Your task to perform on an android device: View the shopping cart on bestbuy.com. Add lenovo thinkpad to the cart on bestbuy.com Image 0: 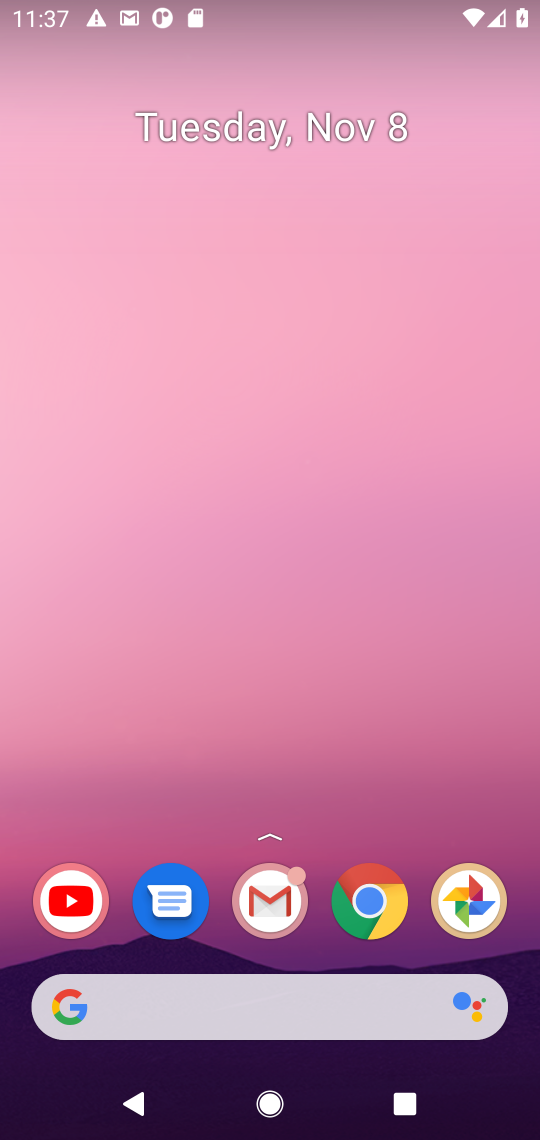
Step 0: click (379, 892)
Your task to perform on an android device: View the shopping cart on bestbuy.com. Add lenovo thinkpad to the cart on bestbuy.com Image 1: 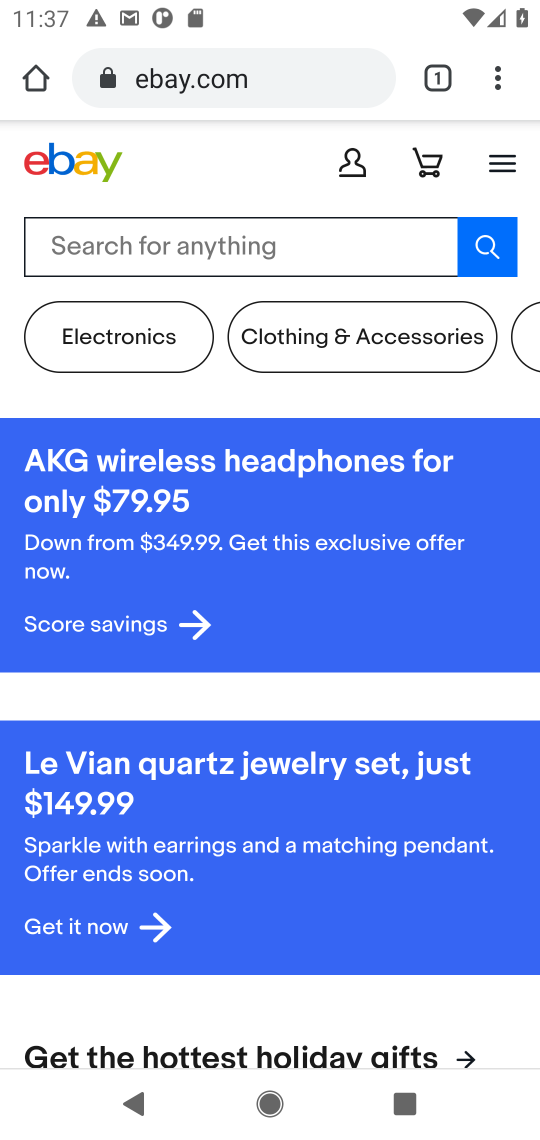
Step 1: click (337, 82)
Your task to perform on an android device: View the shopping cart on bestbuy.com. Add lenovo thinkpad to the cart on bestbuy.com Image 2: 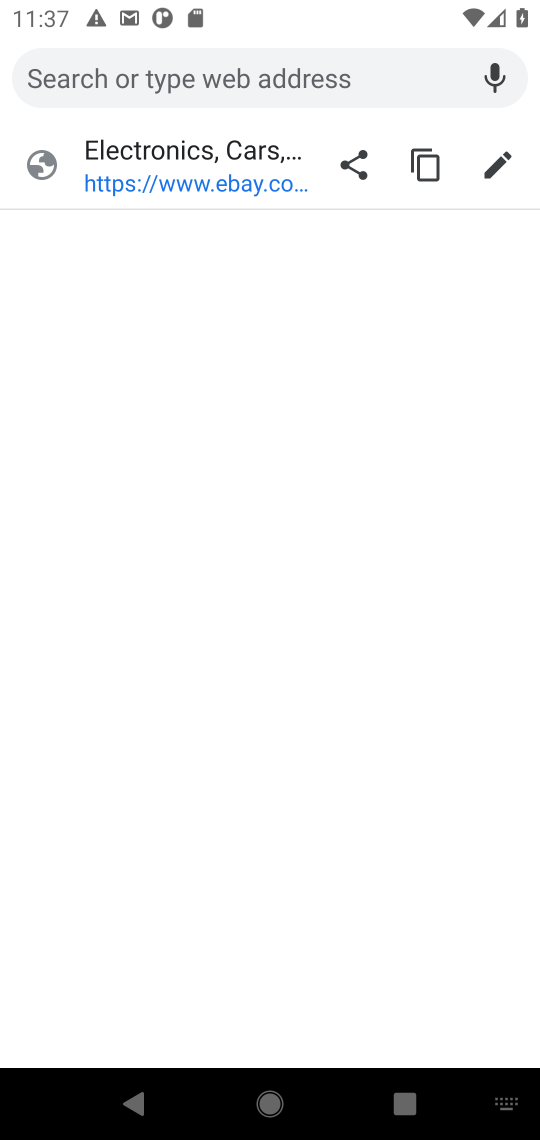
Step 2: type "bestbuy.com"
Your task to perform on an android device: View the shopping cart on bestbuy.com. Add lenovo thinkpad to the cart on bestbuy.com Image 3: 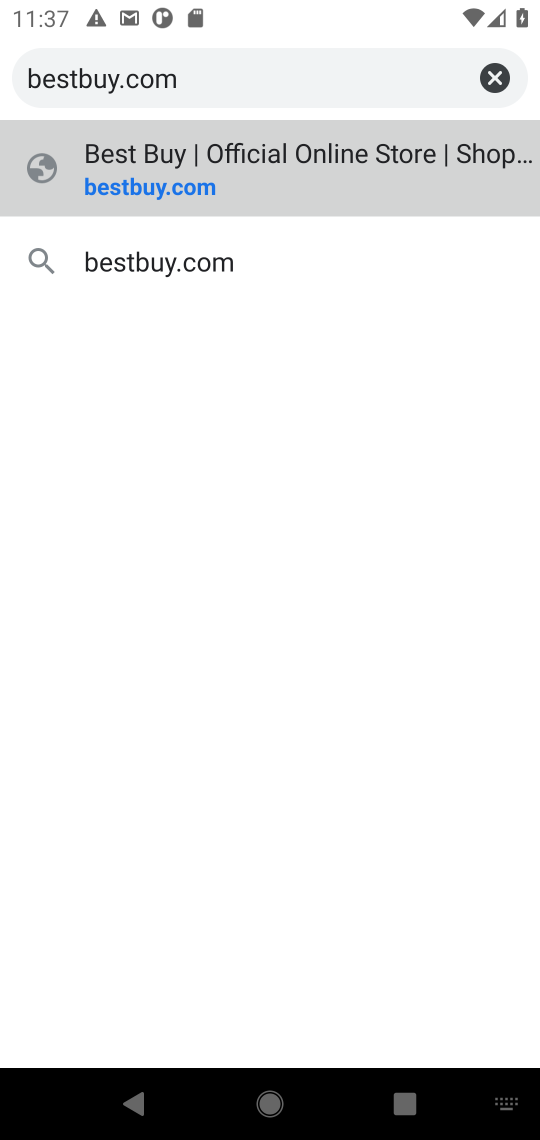
Step 3: press enter
Your task to perform on an android device: View the shopping cart on bestbuy.com. Add lenovo thinkpad to the cart on bestbuy.com Image 4: 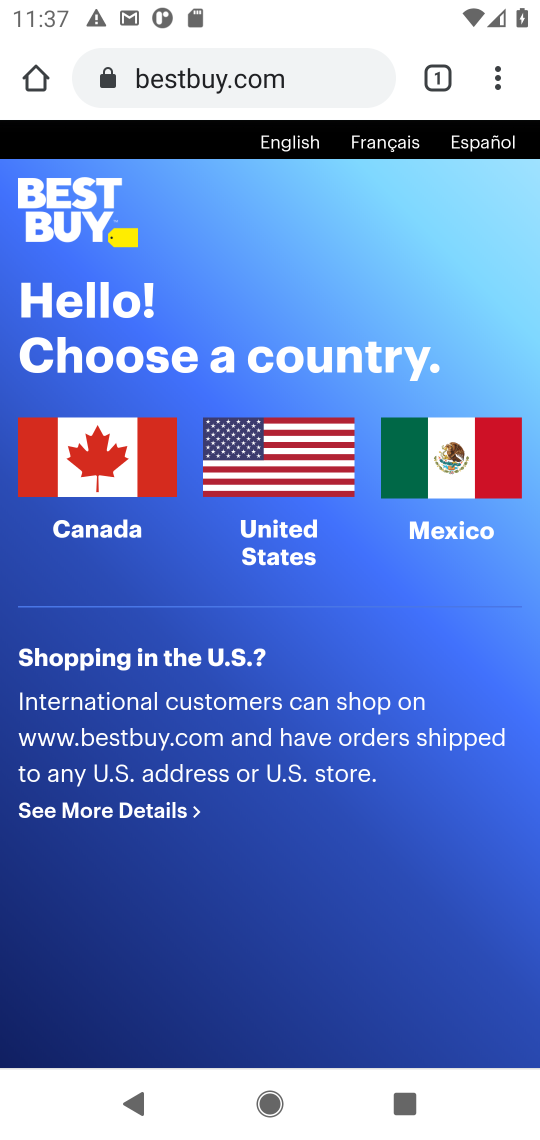
Step 4: click (306, 450)
Your task to perform on an android device: View the shopping cart on bestbuy.com. Add lenovo thinkpad to the cart on bestbuy.com Image 5: 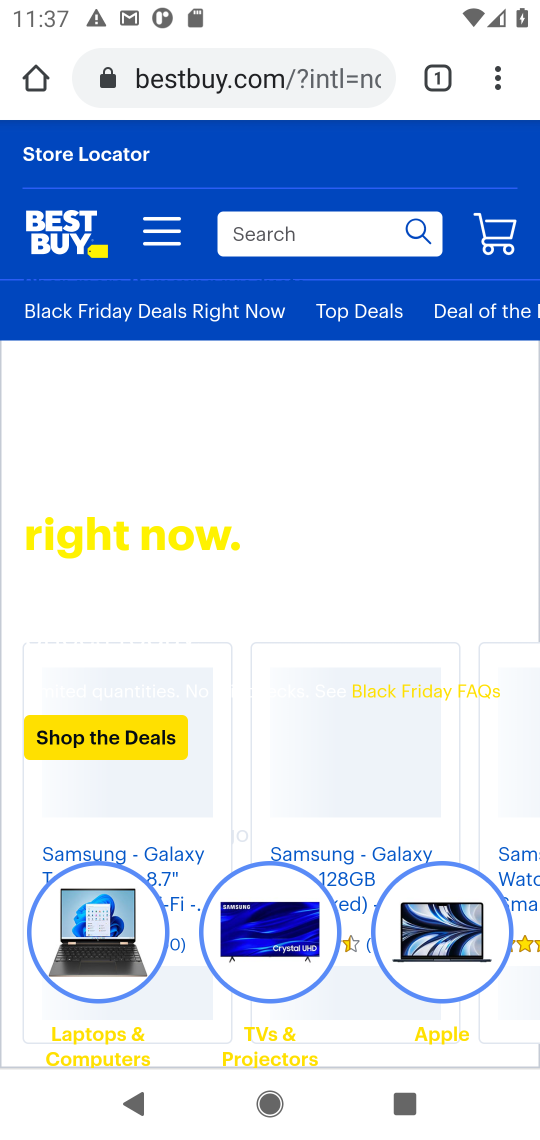
Step 5: click (297, 233)
Your task to perform on an android device: View the shopping cart on bestbuy.com. Add lenovo thinkpad to the cart on bestbuy.com Image 6: 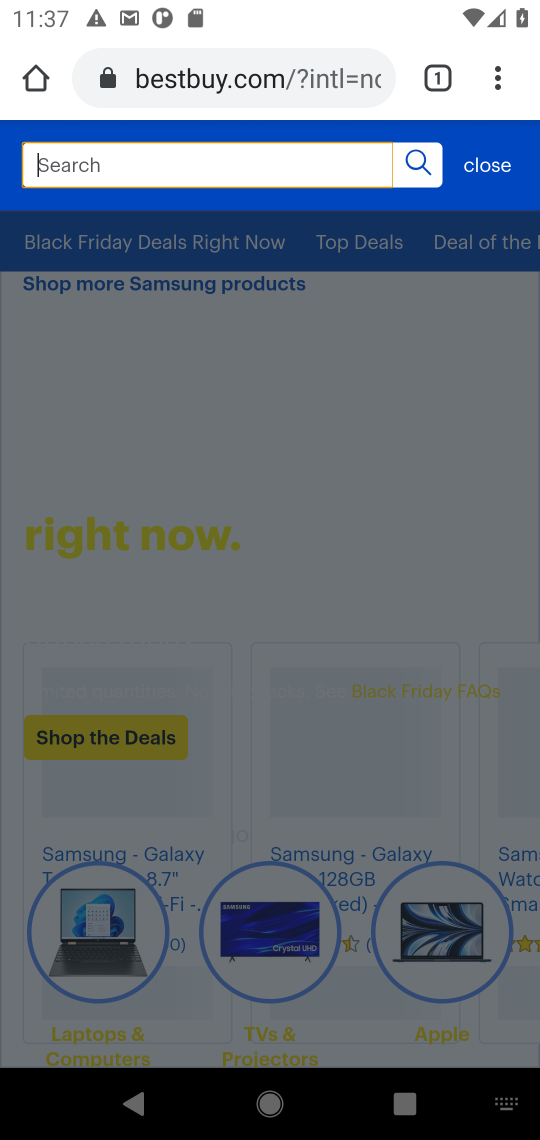
Step 6: type "lenovo thinkpad"
Your task to perform on an android device: View the shopping cart on bestbuy.com. Add lenovo thinkpad to the cart on bestbuy.com Image 7: 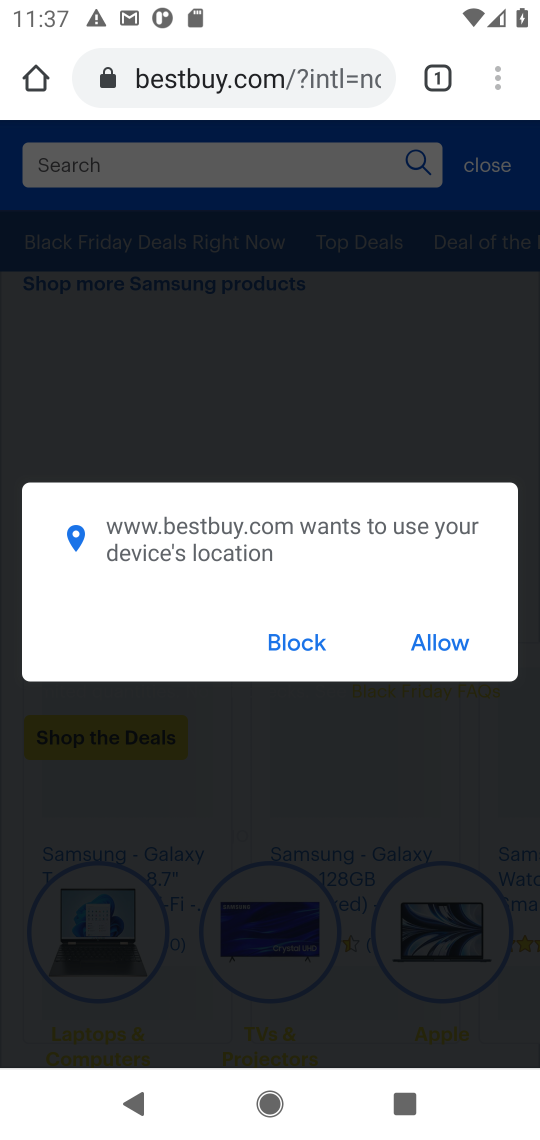
Step 7: press enter
Your task to perform on an android device: View the shopping cart on bestbuy.com. Add lenovo thinkpad to the cart on bestbuy.com Image 8: 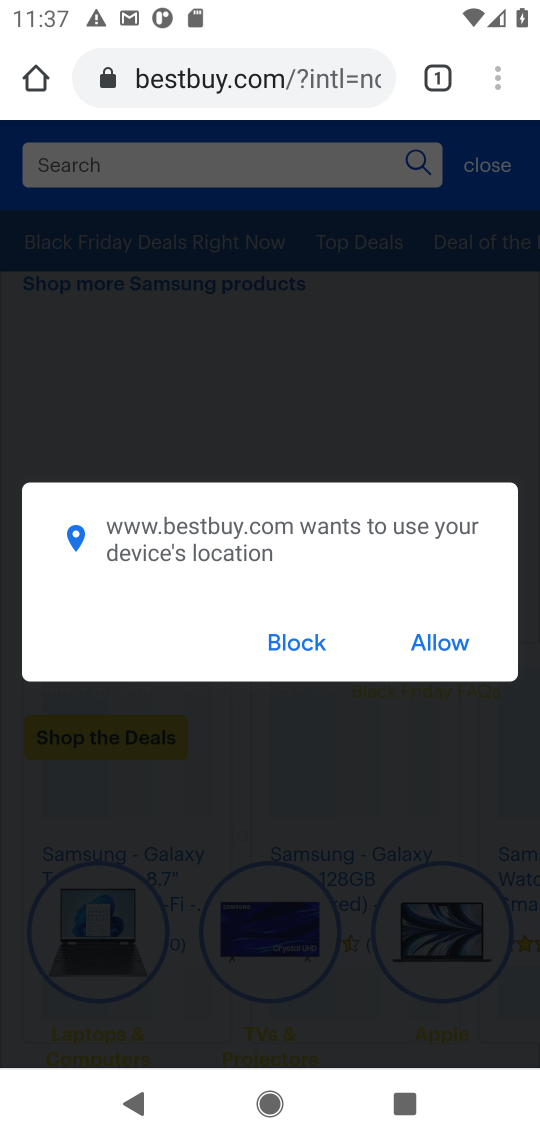
Step 8: click (323, 641)
Your task to perform on an android device: View the shopping cart on bestbuy.com. Add lenovo thinkpad to the cart on bestbuy.com Image 9: 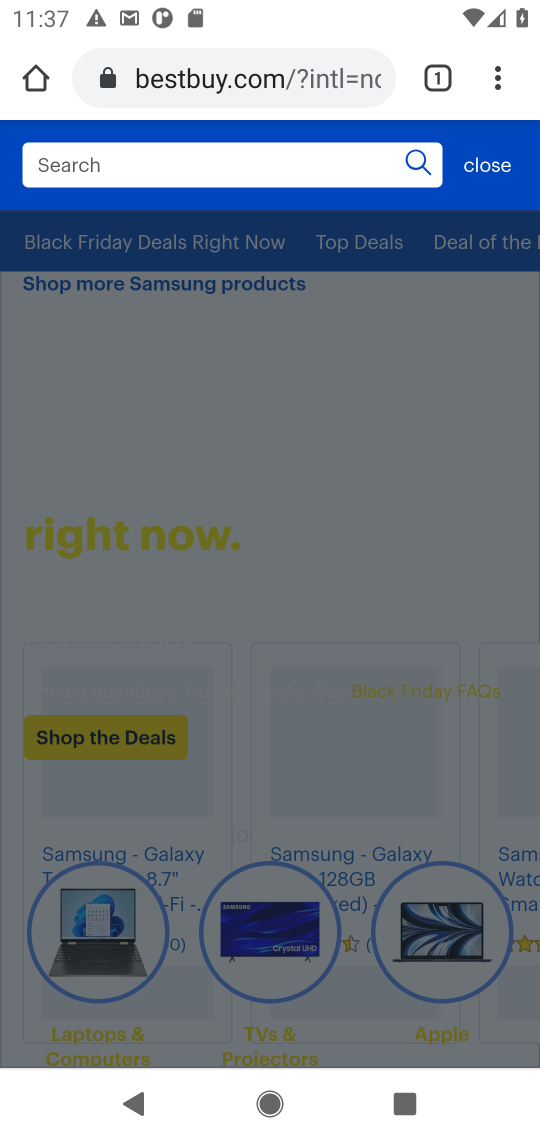
Step 9: click (374, 163)
Your task to perform on an android device: View the shopping cart on bestbuy.com. Add lenovo thinkpad to the cart on bestbuy.com Image 10: 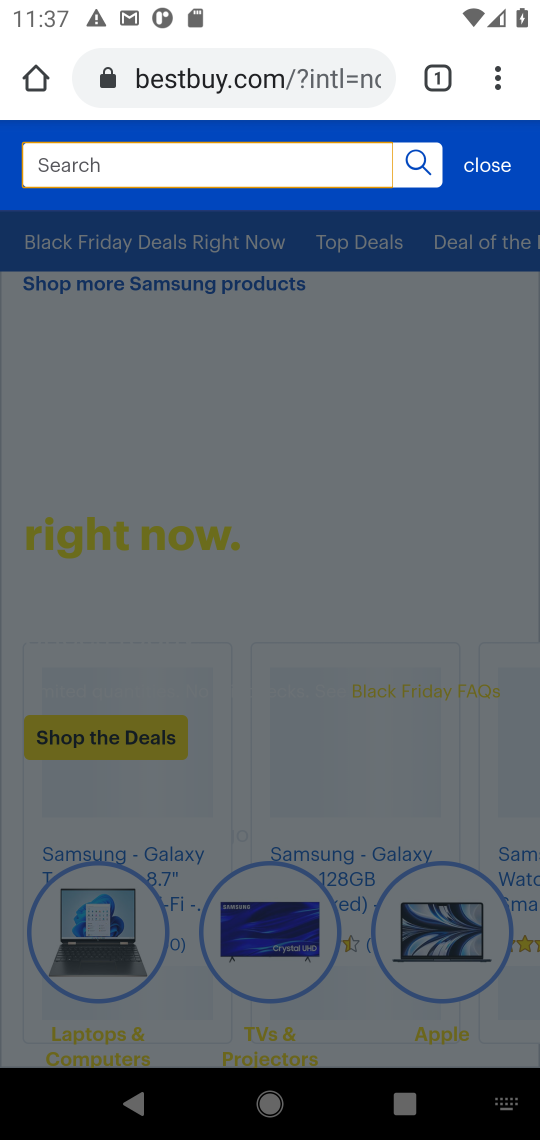
Step 10: type "lenovo thinkpad"
Your task to perform on an android device: View the shopping cart on bestbuy.com. Add lenovo thinkpad to the cart on bestbuy.com Image 11: 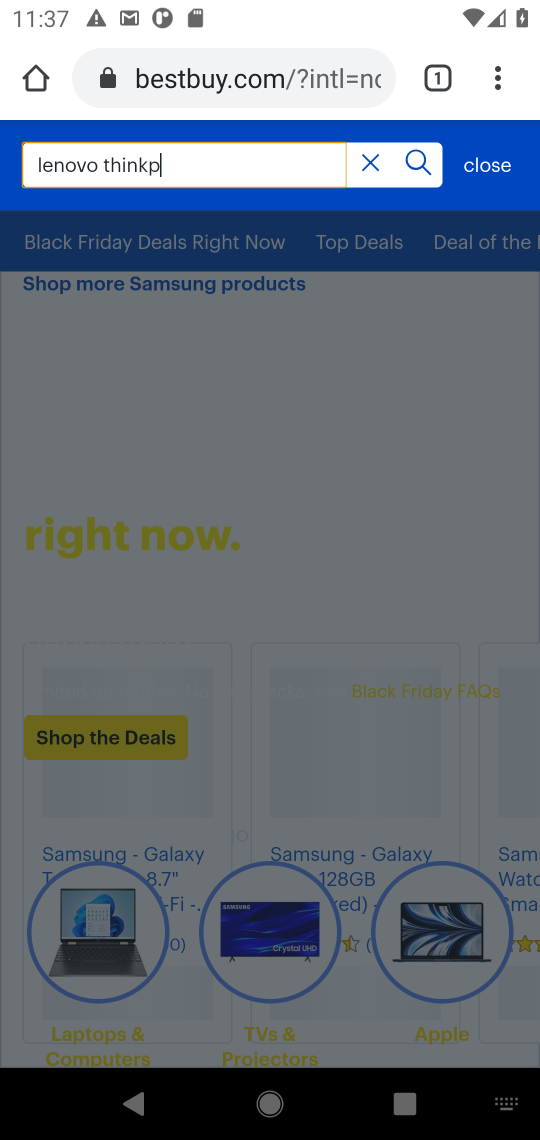
Step 11: press enter
Your task to perform on an android device: View the shopping cart on bestbuy.com. Add lenovo thinkpad to the cart on bestbuy.com Image 12: 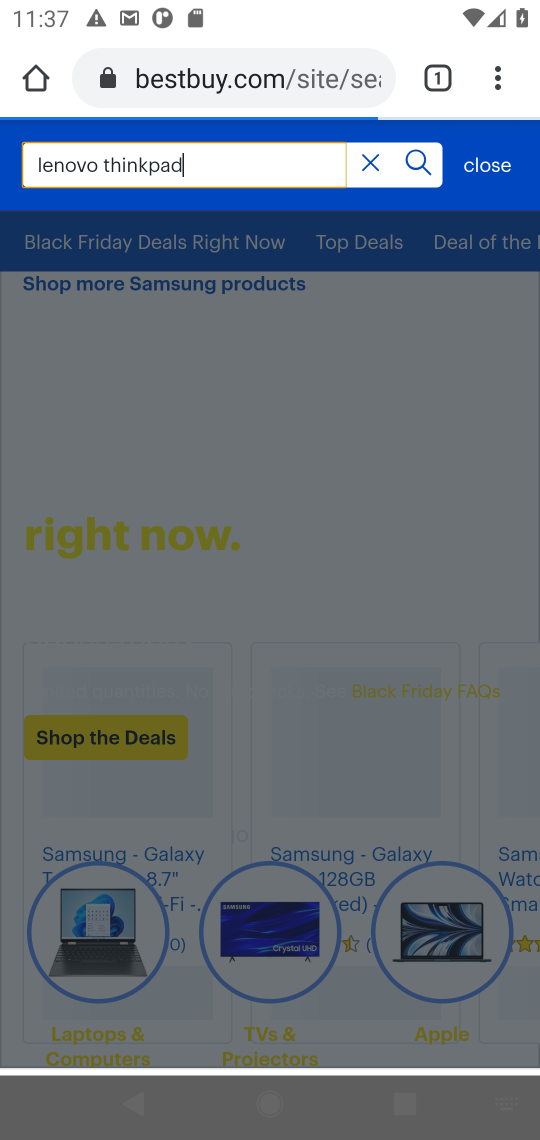
Step 12: click (387, 426)
Your task to perform on an android device: View the shopping cart on bestbuy.com. Add lenovo thinkpad to the cart on bestbuy.com Image 13: 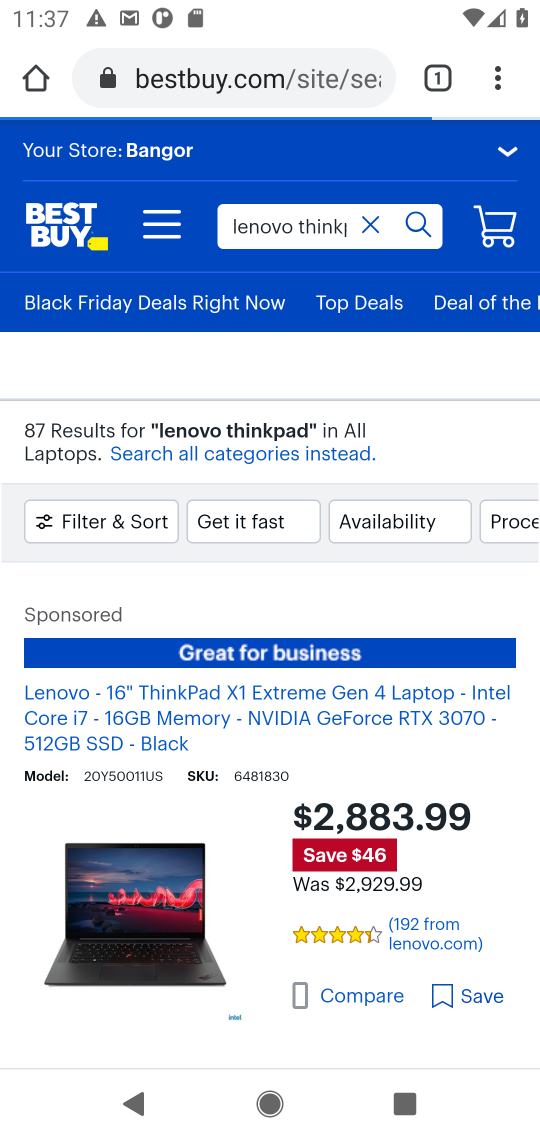
Step 13: click (145, 891)
Your task to perform on an android device: View the shopping cart on bestbuy.com. Add lenovo thinkpad to the cart on bestbuy.com Image 14: 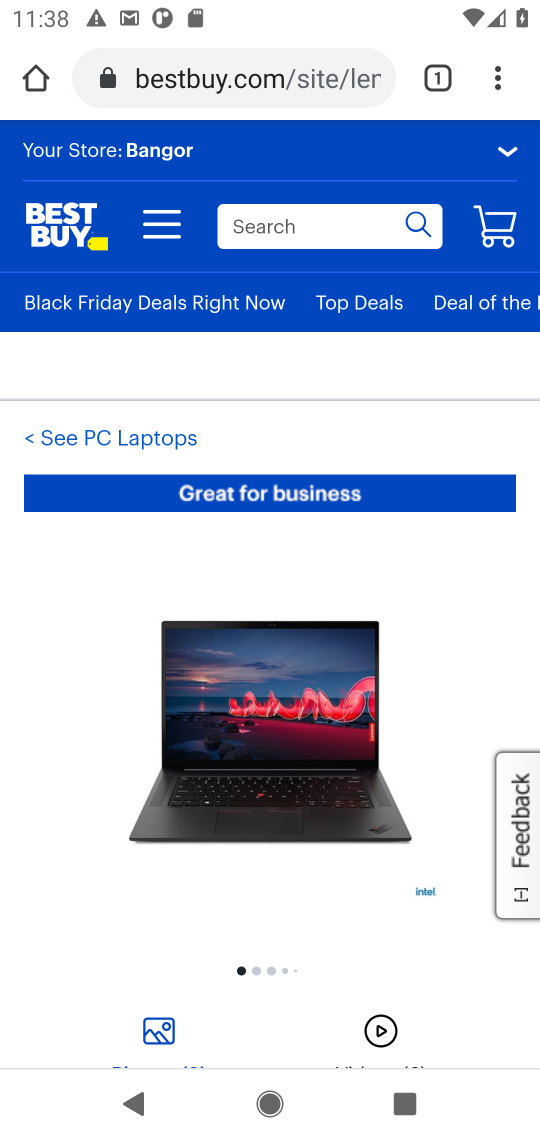
Step 14: drag from (306, 785) to (312, 386)
Your task to perform on an android device: View the shopping cart on bestbuy.com. Add lenovo thinkpad to the cart on bestbuy.com Image 15: 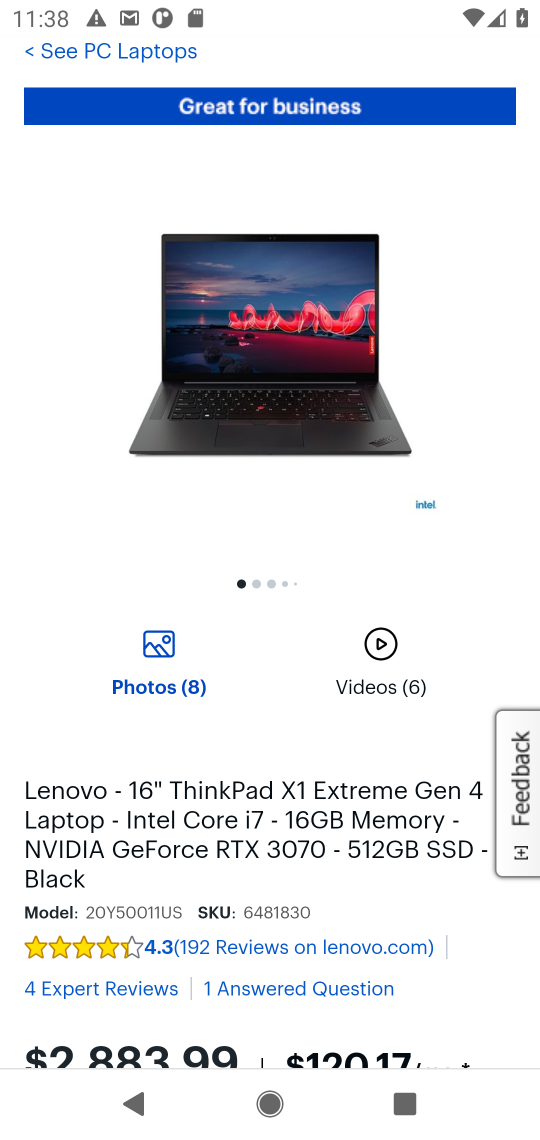
Step 15: drag from (358, 529) to (342, 216)
Your task to perform on an android device: View the shopping cart on bestbuy.com. Add lenovo thinkpad to the cart on bestbuy.com Image 16: 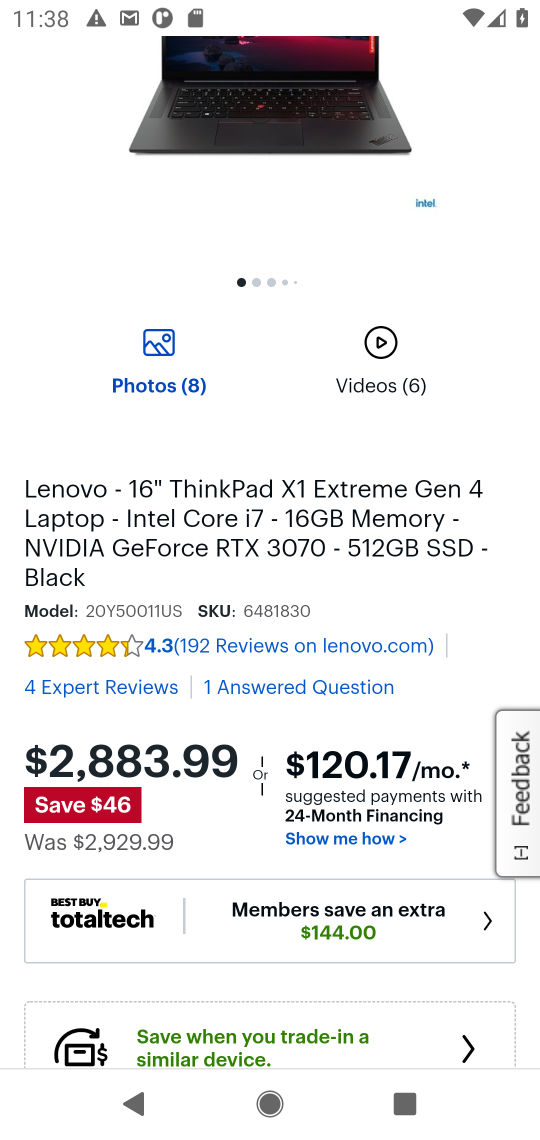
Step 16: drag from (285, 958) to (299, 329)
Your task to perform on an android device: View the shopping cart on bestbuy.com. Add lenovo thinkpad to the cart on bestbuy.com Image 17: 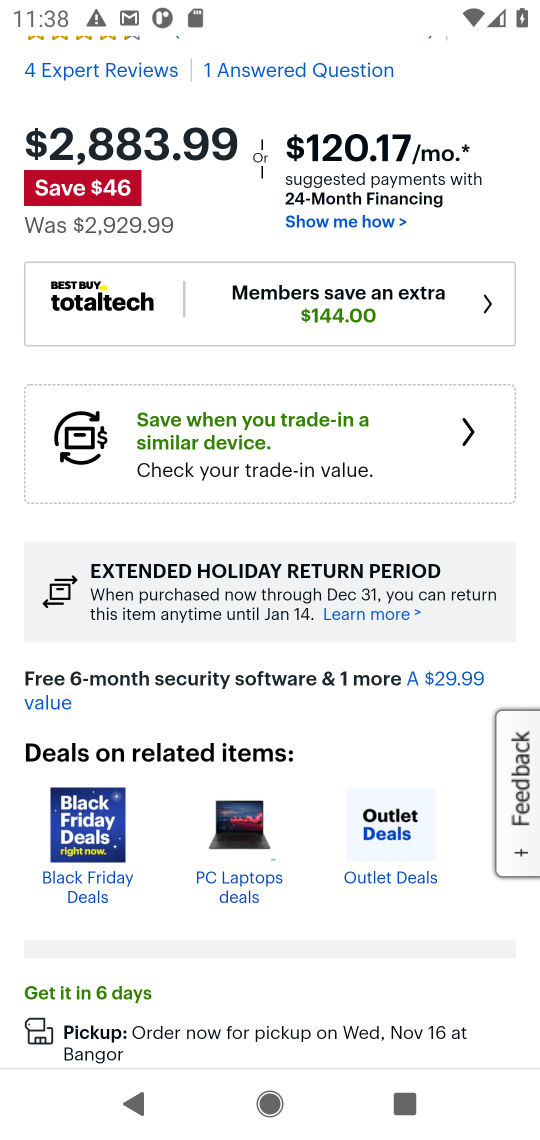
Step 17: drag from (411, 750) to (405, 407)
Your task to perform on an android device: View the shopping cart on bestbuy.com. Add lenovo thinkpad to the cart on bestbuy.com Image 18: 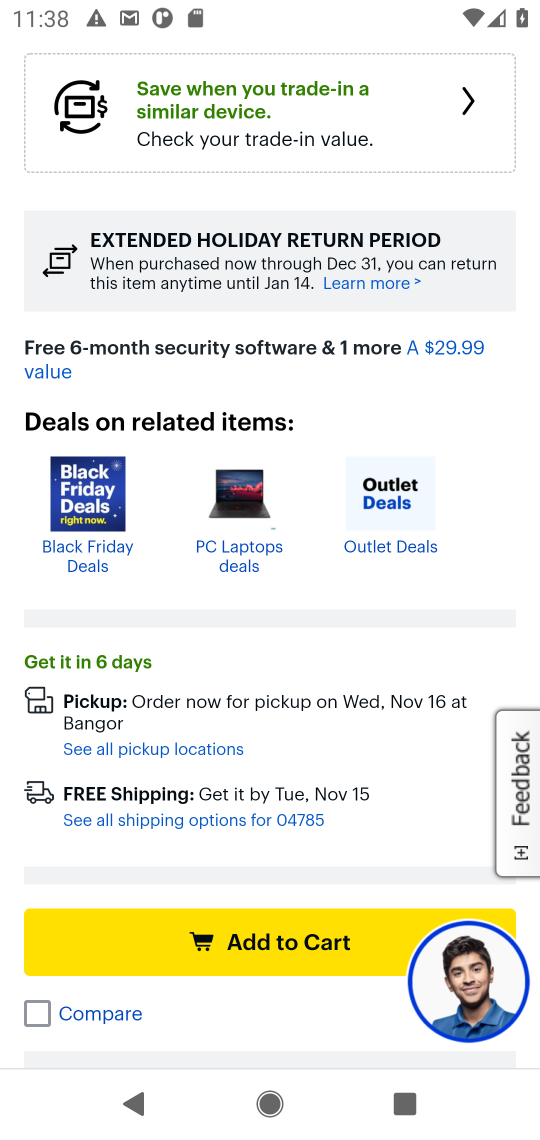
Step 18: click (317, 942)
Your task to perform on an android device: View the shopping cart on bestbuy.com. Add lenovo thinkpad to the cart on bestbuy.com Image 19: 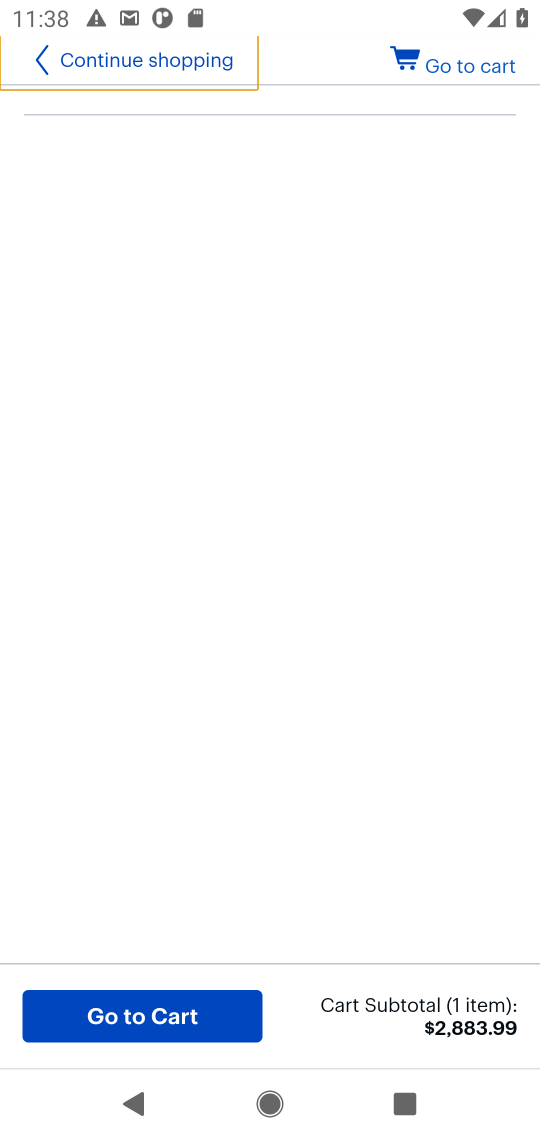
Step 19: task complete